Your task to perform on an android device: Open eBay Image 0: 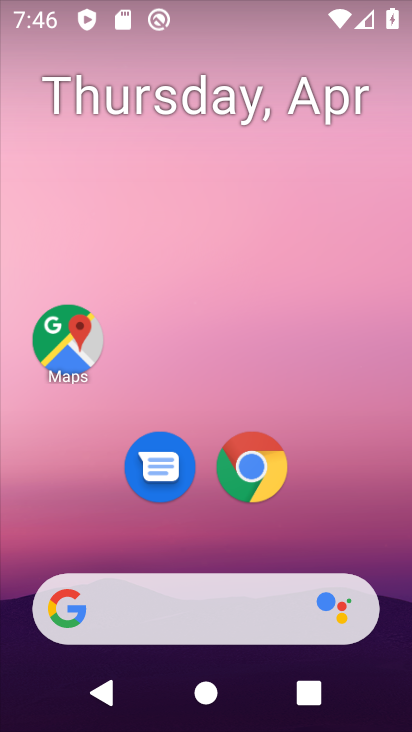
Step 0: drag from (205, 601) to (121, 3)
Your task to perform on an android device: Open eBay Image 1: 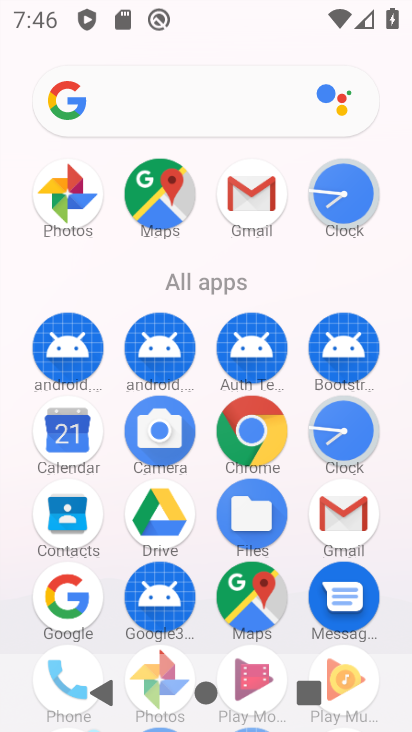
Step 1: click (254, 453)
Your task to perform on an android device: Open eBay Image 2: 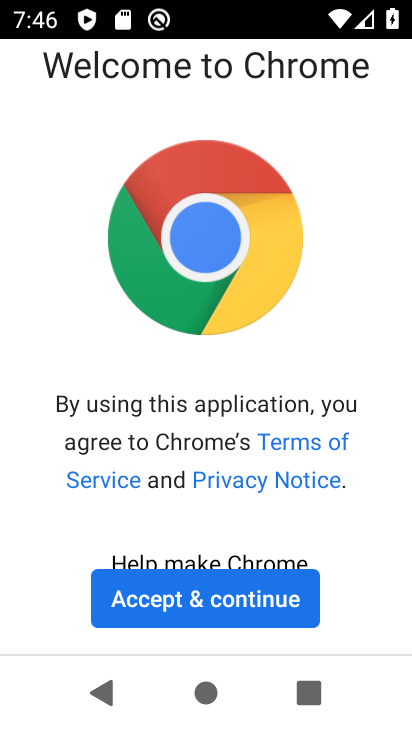
Step 2: click (263, 605)
Your task to perform on an android device: Open eBay Image 3: 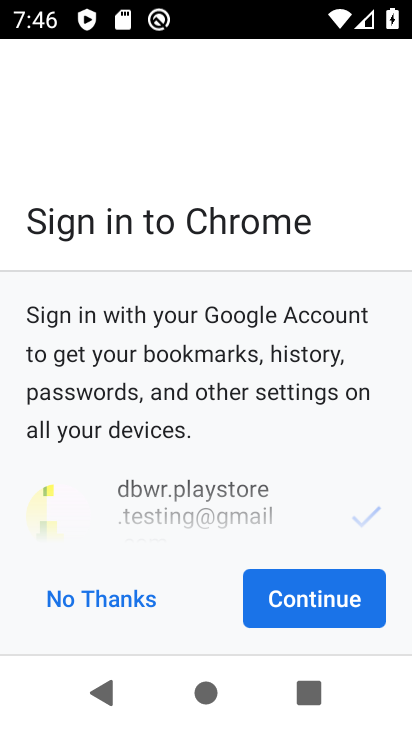
Step 3: click (289, 602)
Your task to perform on an android device: Open eBay Image 4: 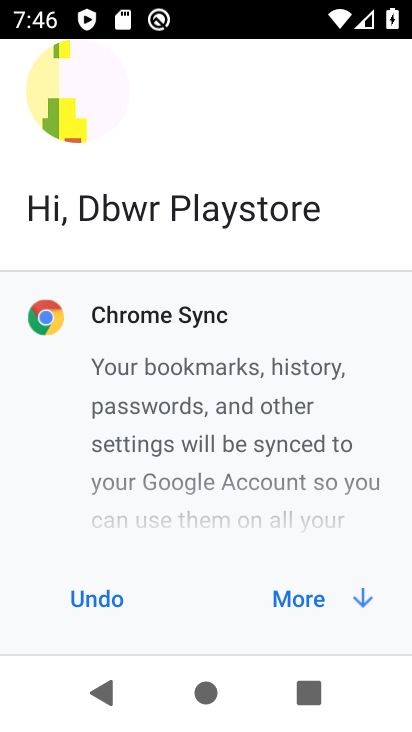
Step 4: click (289, 602)
Your task to perform on an android device: Open eBay Image 5: 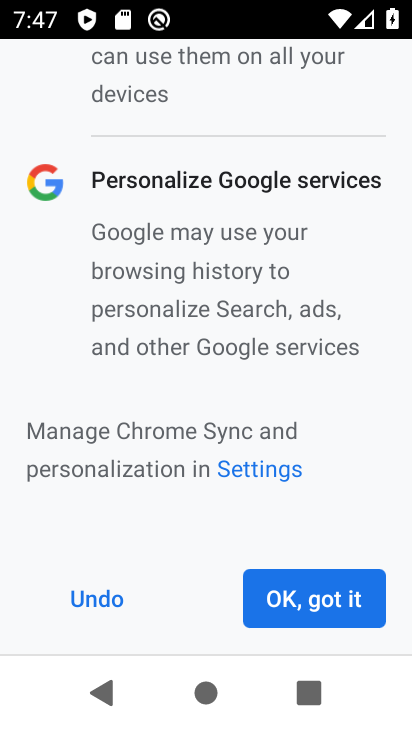
Step 5: click (289, 602)
Your task to perform on an android device: Open eBay Image 6: 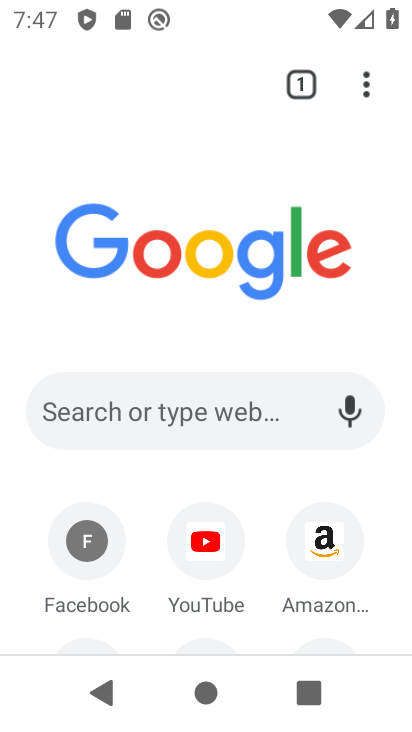
Step 6: drag from (280, 593) to (226, 50)
Your task to perform on an android device: Open eBay Image 7: 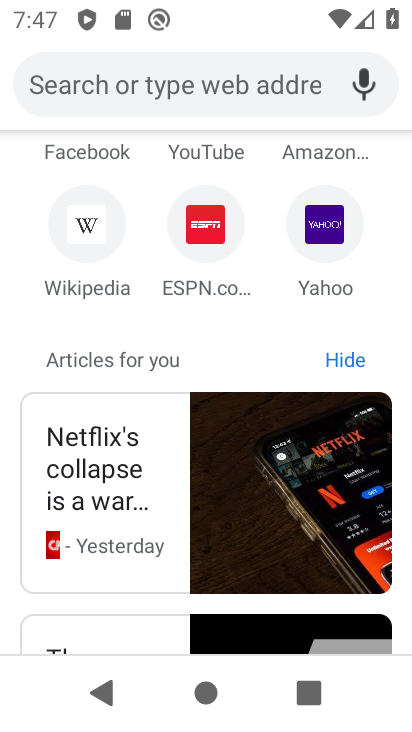
Step 7: click (225, 83)
Your task to perform on an android device: Open eBay Image 8: 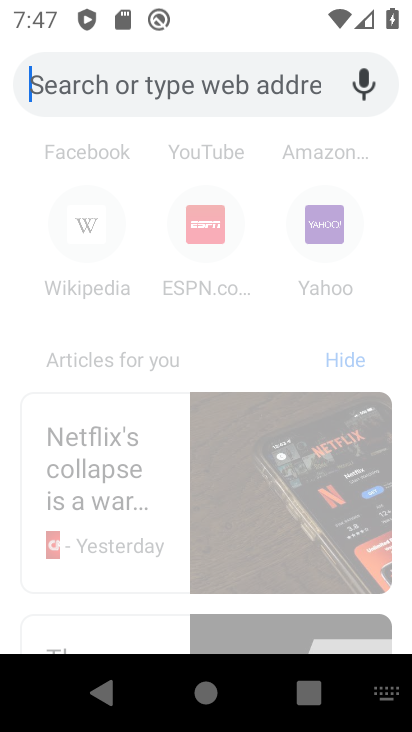
Step 8: type "ebay"
Your task to perform on an android device: Open eBay Image 9: 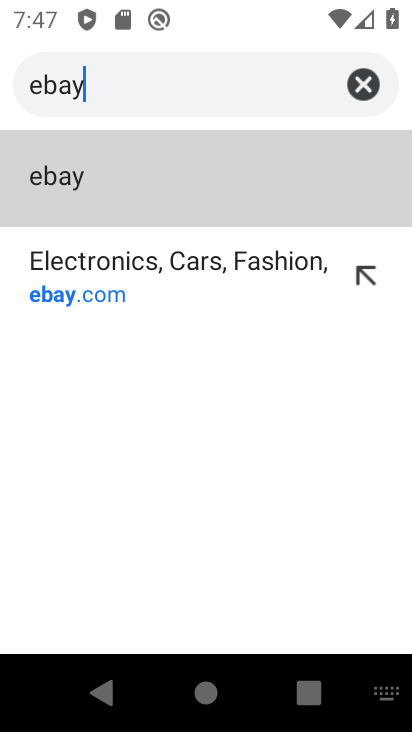
Step 9: click (142, 299)
Your task to perform on an android device: Open eBay Image 10: 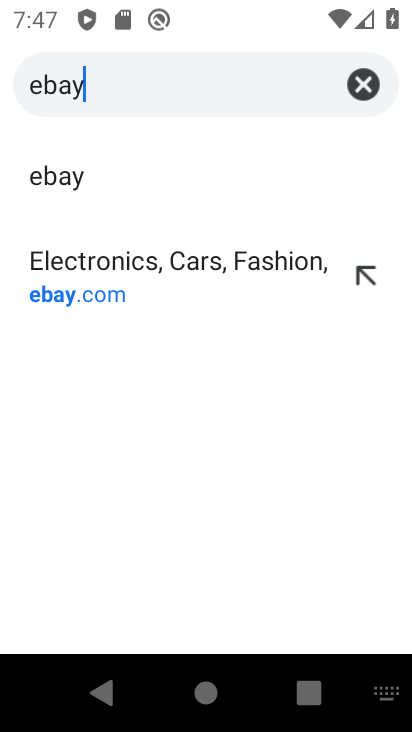
Step 10: click (96, 251)
Your task to perform on an android device: Open eBay Image 11: 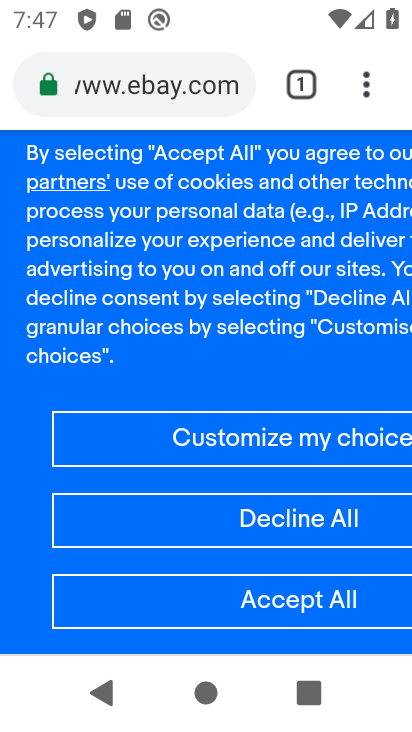
Step 11: task complete